Your task to perform on an android device: delete location history Image 0: 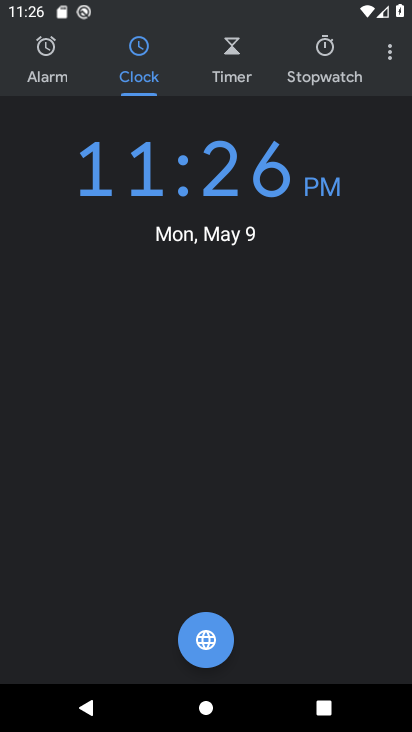
Step 0: press home button
Your task to perform on an android device: delete location history Image 1: 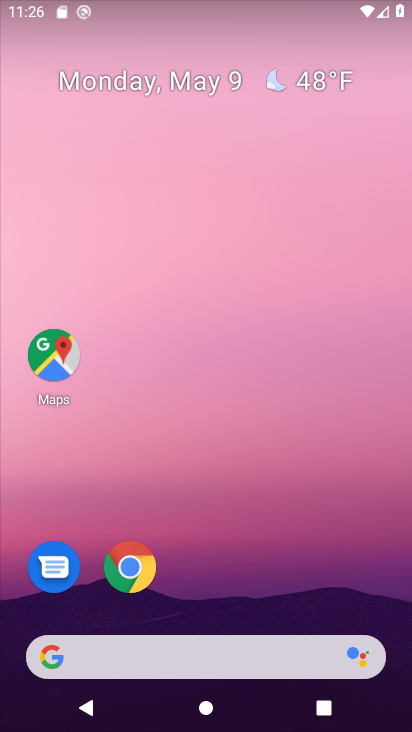
Step 1: drag from (207, 591) to (291, 0)
Your task to perform on an android device: delete location history Image 2: 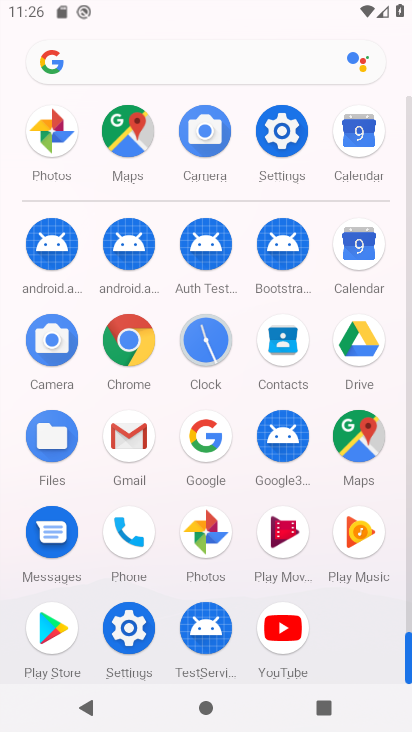
Step 2: click (296, 145)
Your task to perform on an android device: delete location history Image 3: 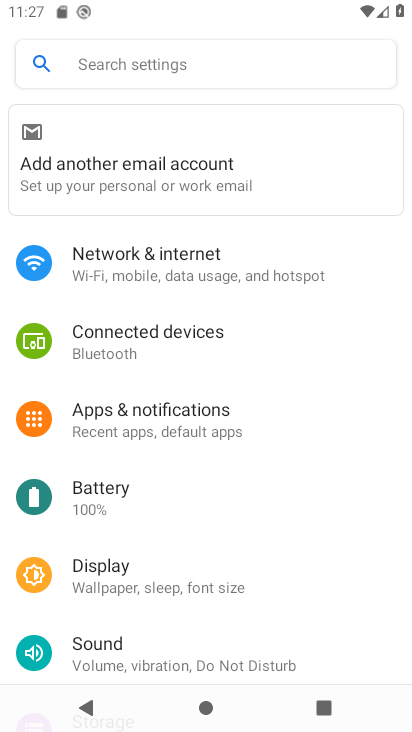
Step 3: press home button
Your task to perform on an android device: delete location history Image 4: 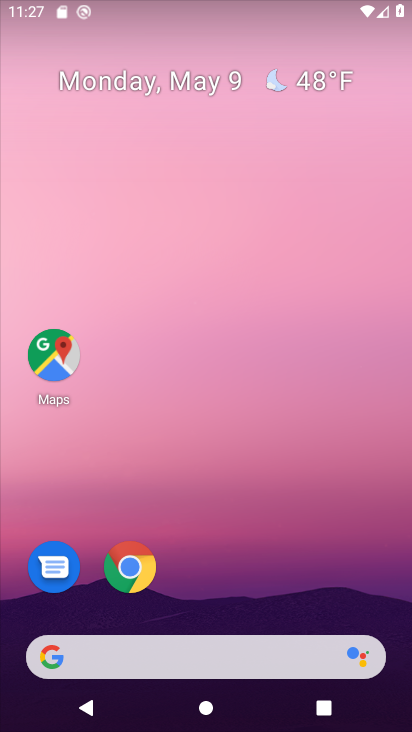
Step 4: click (55, 360)
Your task to perform on an android device: delete location history Image 5: 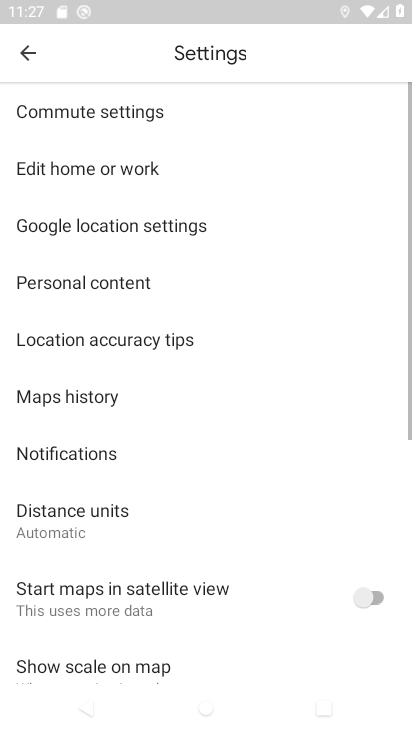
Step 5: click (30, 54)
Your task to perform on an android device: delete location history Image 6: 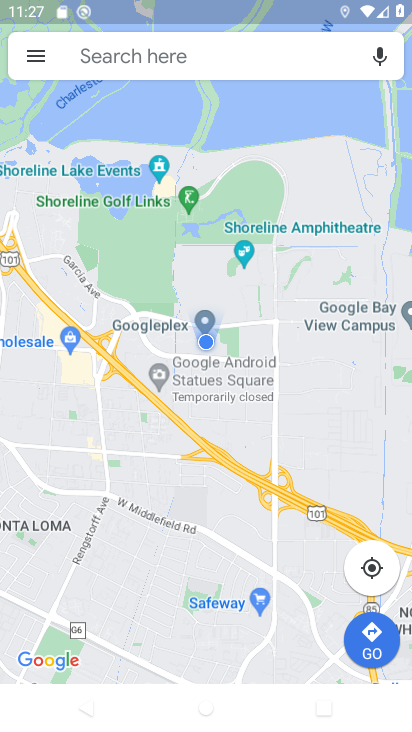
Step 6: click (29, 56)
Your task to perform on an android device: delete location history Image 7: 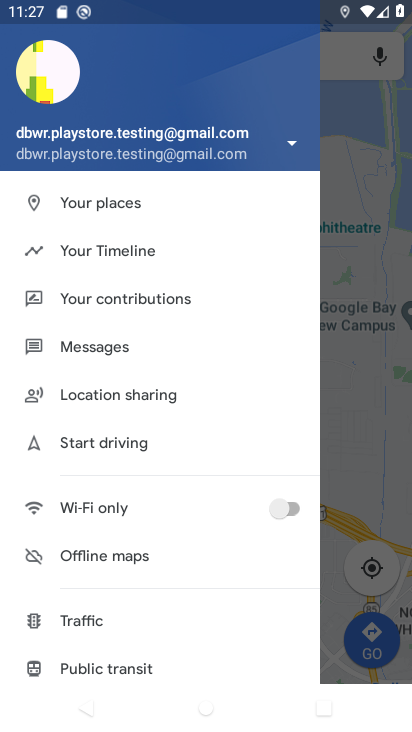
Step 7: click (112, 259)
Your task to perform on an android device: delete location history Image 8: 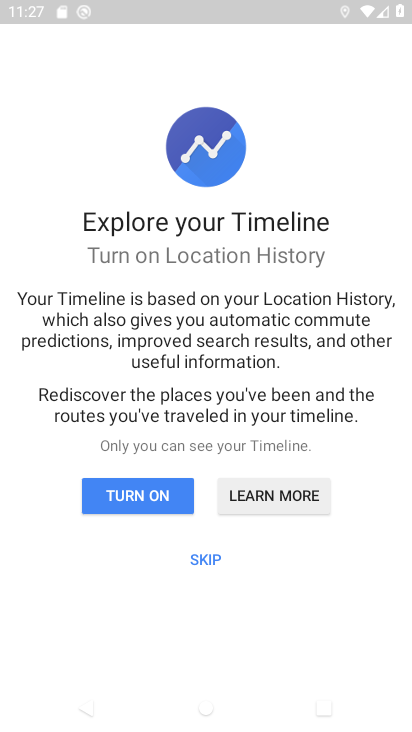
Step 8: click (203, 551)
Your task to perform on an android device: delete location history Image 9: 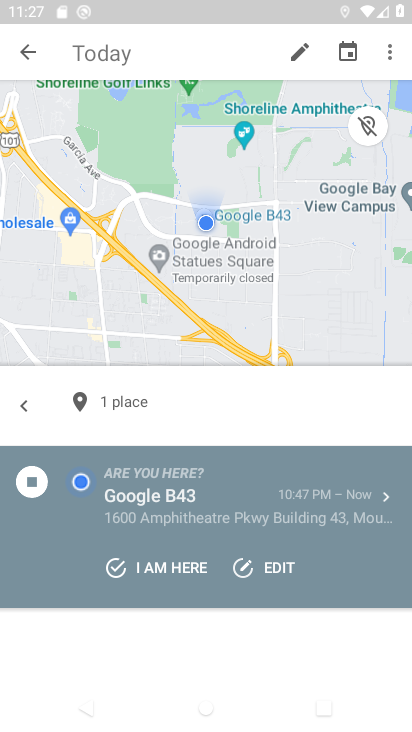
Step 9: click (204, 558)
Your task to perform on an android device: delete location history Image 10: 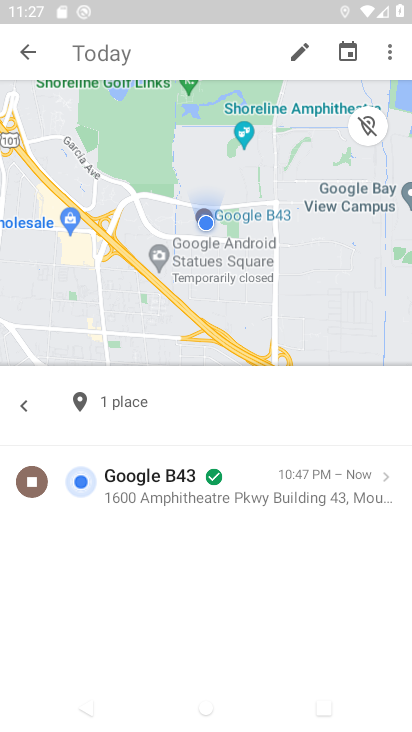
Step 10: click (394, 59)
Your task to perform on an android device: delete location history Image 11: 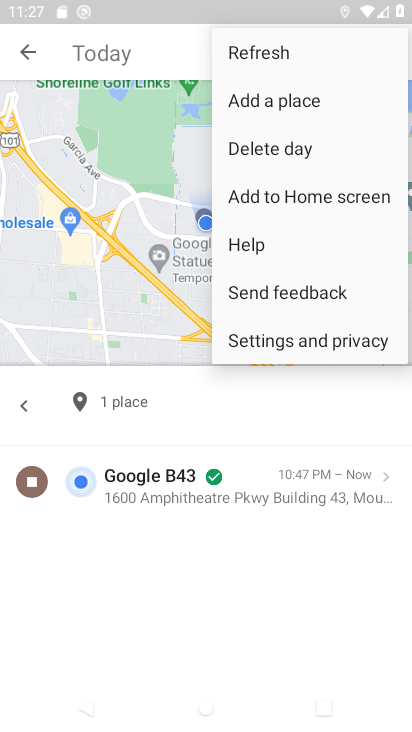
Step 11: click (310, 347)
Your task to perform on an android device: delete location history Image 12: 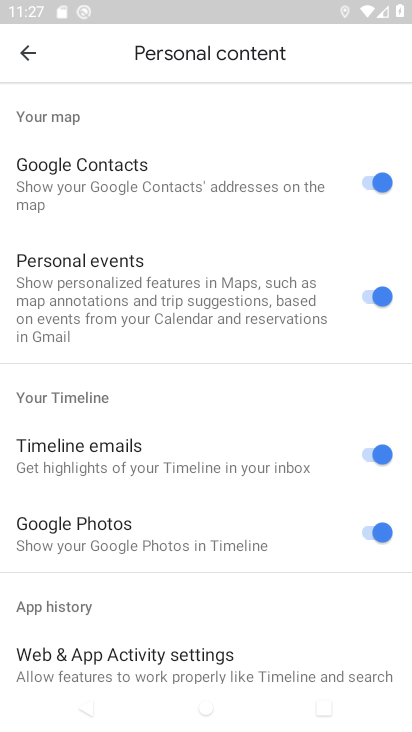
Step 12: drag from (136, 458) to (184, 108)
Your task to perform on an android device: delete location history Image 13: 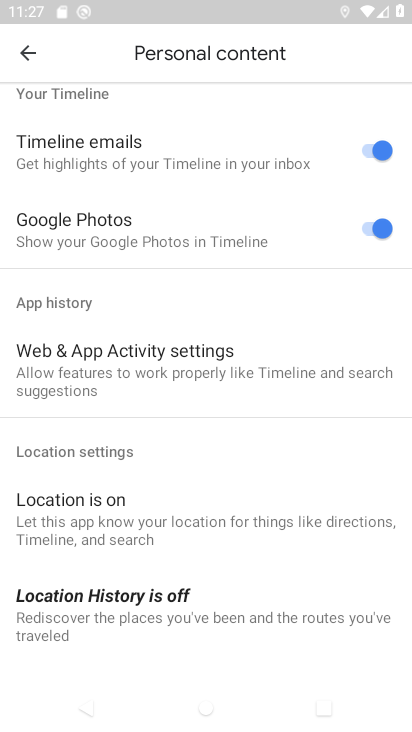
Step 13: drag from (182, 601) to (215, 316)
Your task to perform on an android device: delete location history Image 14: 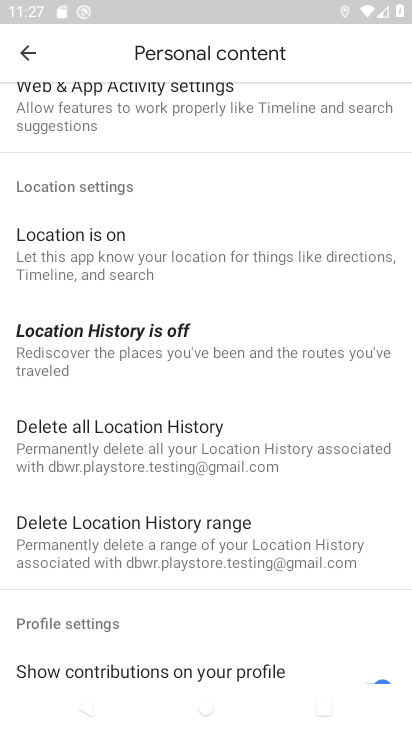
Step 14: click (160, 553)
Your task to perform on an android device: delete location history Image 15: 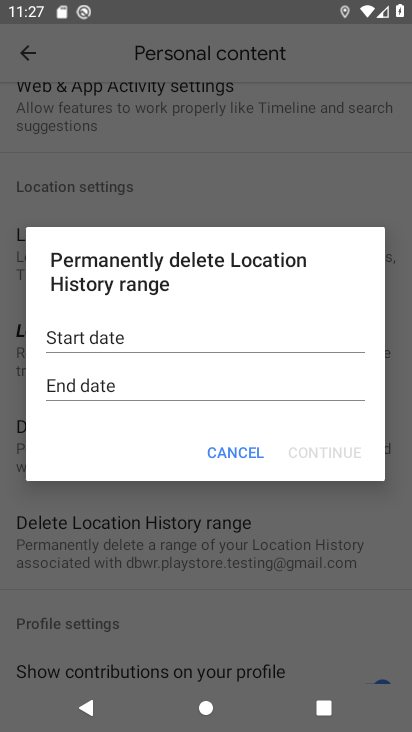
Step 15: click (216, 456)
Your task to perform on an android device: delete location history Image 16: 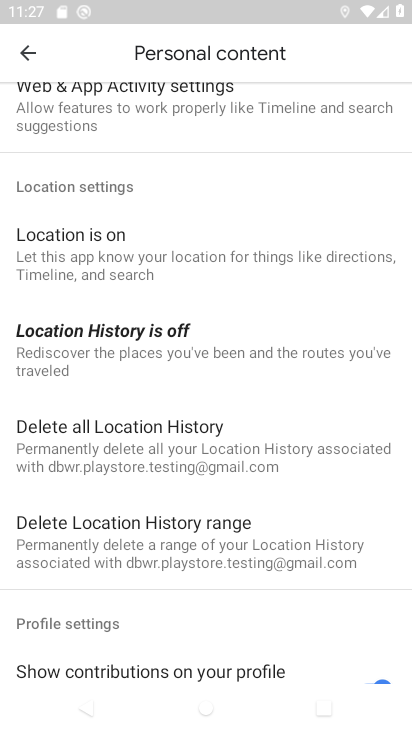
Step 16: click (167, 443)
Your task to perform on an android device: delete location history Image 17: 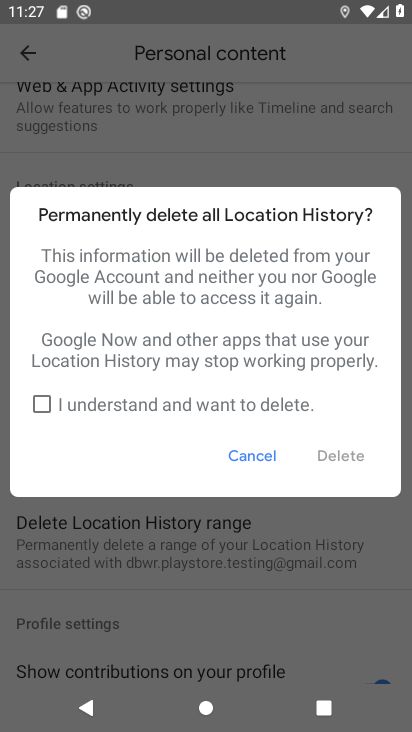
Step 17: click (84, 399)
Your task to perform on an android device: delete location history Image 18: 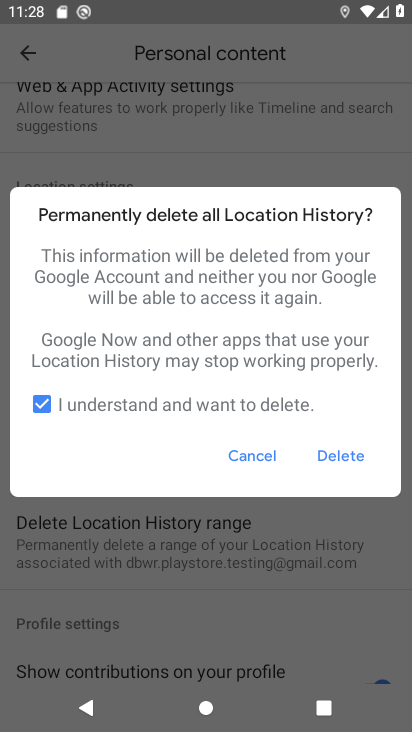
Step 18: click (349, 453)
Your task to perform on an android device: delete location history Image 19: 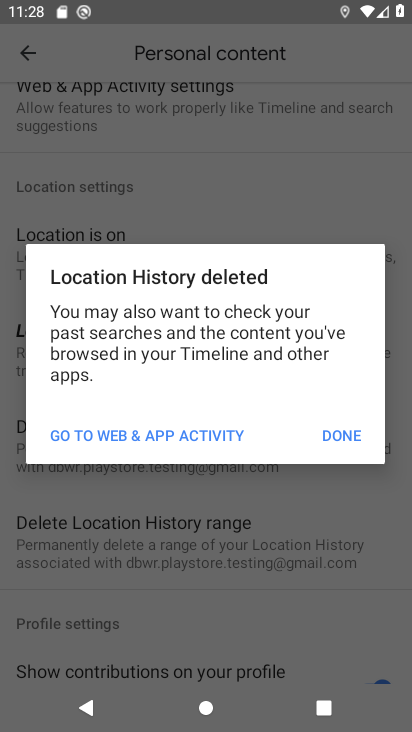
Step 19: click (345, 432)
Your task to perform on an android device: delete location history Image 20: 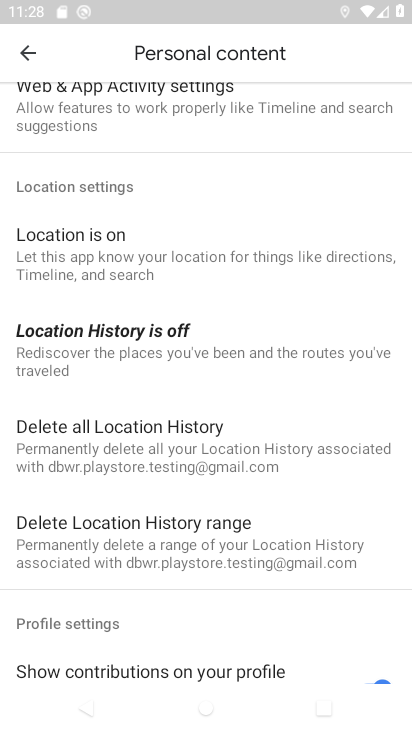
Step 20: task complete